Your task to perform on an android device: read, delete, or share a saved page in the chrome app Image 0: 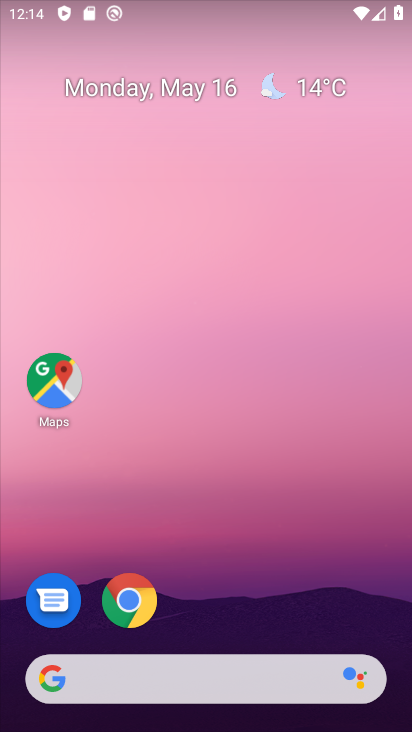
Step 0: click (129, 612)
Your task to perform on an android device: read, delete, or share a saved page in the chrome app Image 1: 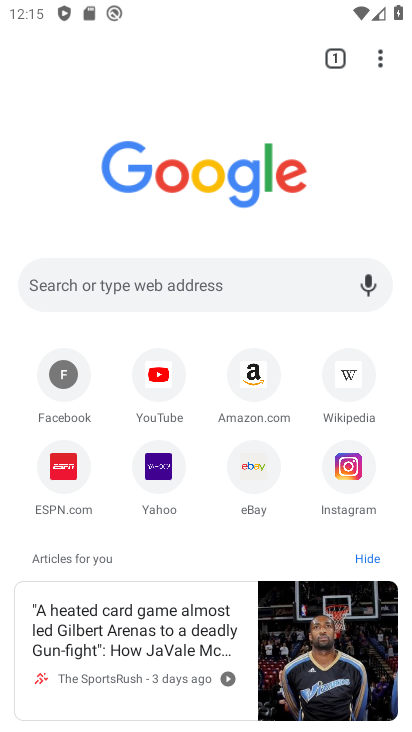
Step 1: click (344, 379)
Your task to perform on an android device: read, delete, or share a saved page in the chrome app Image 2: 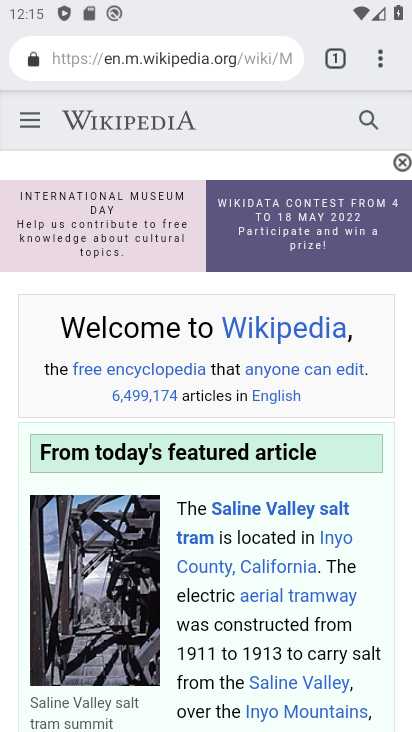
Step 2: drag from (265, 590) to (265, 117)
Your task to perform on an android device: read, delete, or share a saved page in the chrome app Image 3: 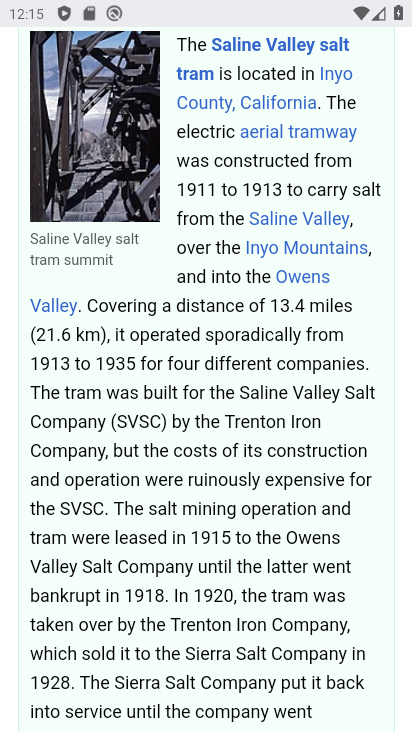
Step 3: drag from (286, 608) to (295, 244)
Your task to perform on an android device: read, delete, or share a saved page in the chrome app Image 4: 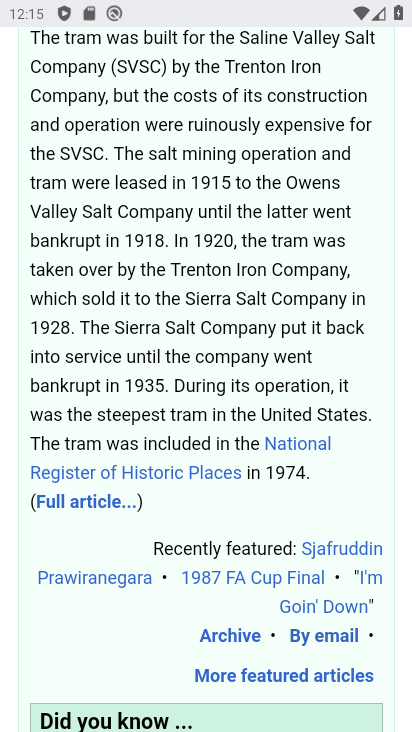
Step 4: drag from (265, 230) to (233, 592)
Your task to perform on an android device: read, delete, or share a saved page in the chrome app Image 5: 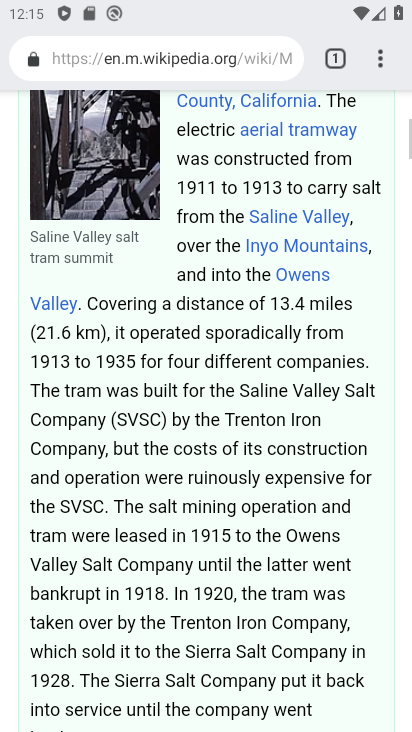
Step 5: drag from (201, 346) to (194, 630)
Your task to perform on an android device: read, delete, or share a saved page in the chrome app Image 6: 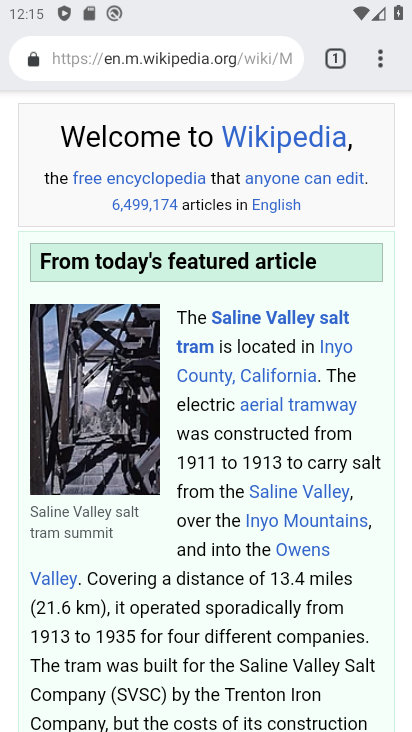
Step 6: drag from (378, 57) to (198, 58)
Your task to perform on an android device: read, delete, or share a saved page in the chrome app Image 7: 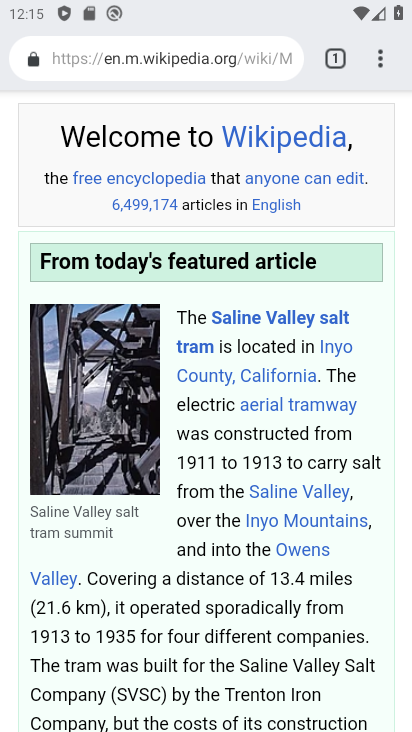
Step 7: drag from (380, 64) to (199, 62)
Your task to perform on an android device: read, delete, or share a saved page in the chrome app Image 8: 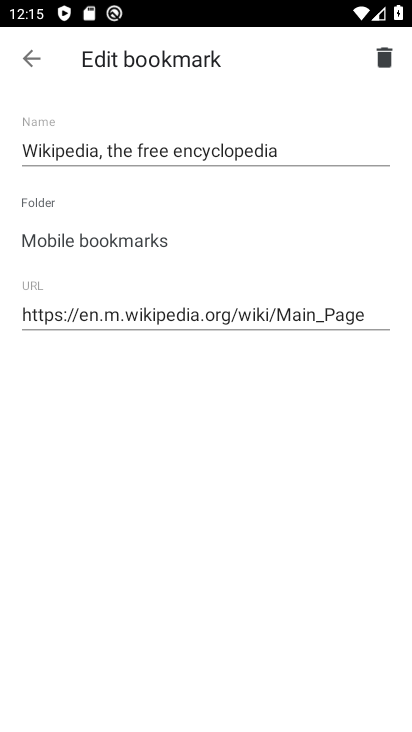
Step 8: click (379, 52)
Your task to perform on an android device: read, delete, or share a saved page in the chrome app Image 9: 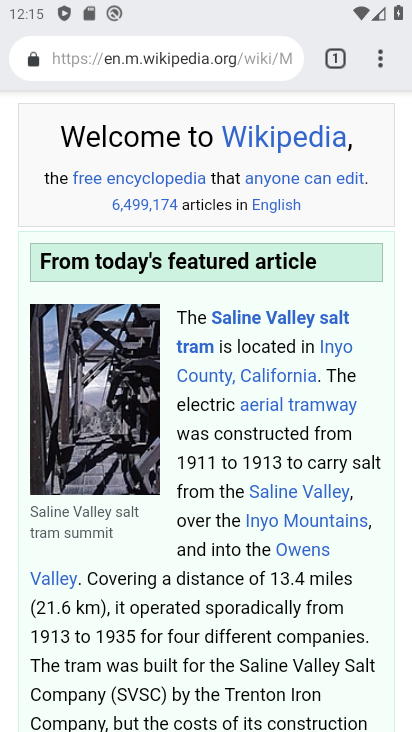
Step 9: task complete